Your task to perform on an android device: turn off javascript in the chrome app Image 0: 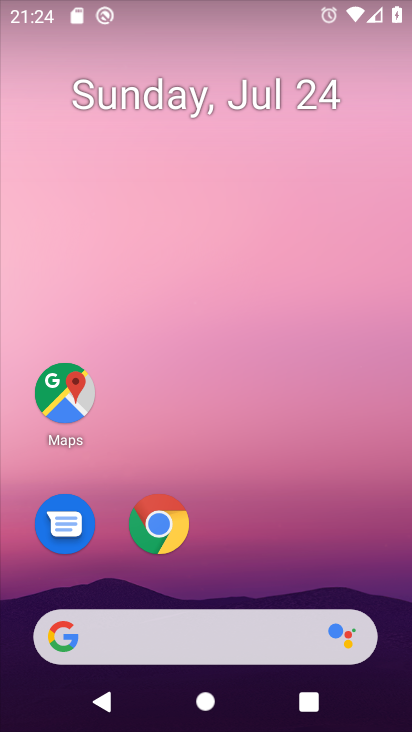
Step 0: click (167, 527)
Your task to perform on an android device: turn off javascript in the chrome app Image 1: 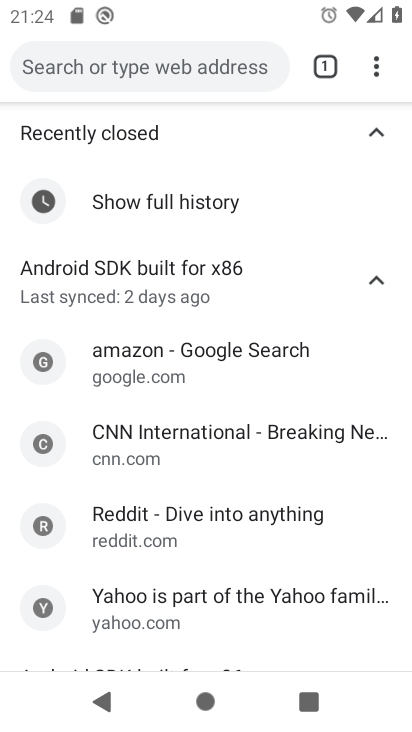
Step 1: click (375, 70)
Your task to perform on an android device: turn off javascript in the chrome app Image 2: 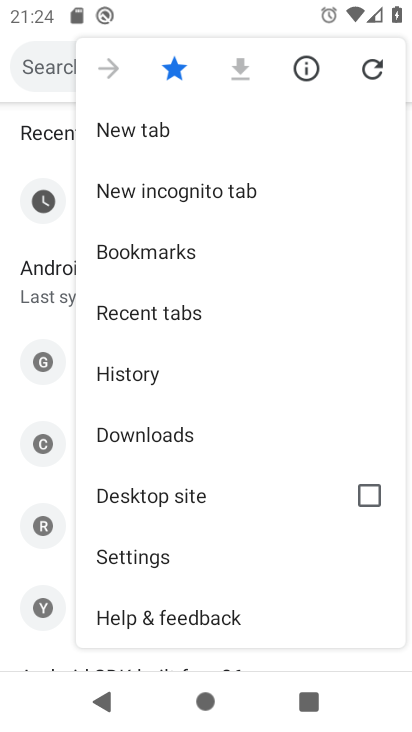
Step 2: click (154, 552)
Your task to perform on an android device: turn off javascript in the chrome app Image 3: 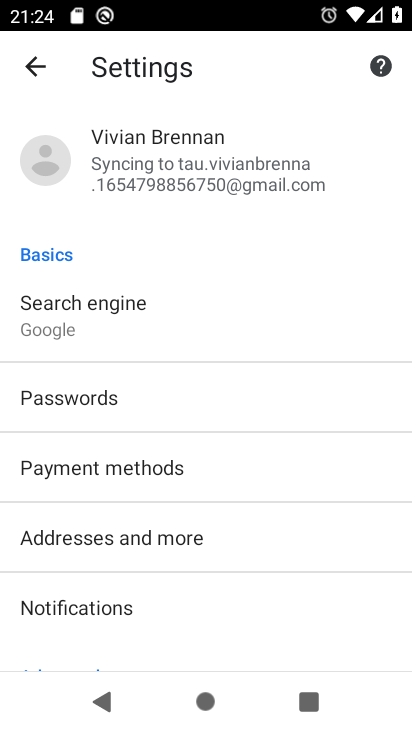
Step 3: drag from (261, 520) to (287, 215)
Your task to perform on an android device: turn off javascript in the chrome app Image 4: 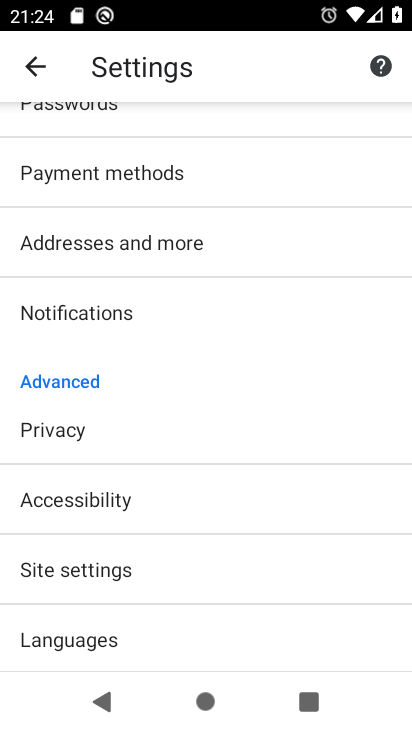
Step 4: click (125, 568)
Your task to perform on an android device: turn off javascript in the chrome app Image 5: 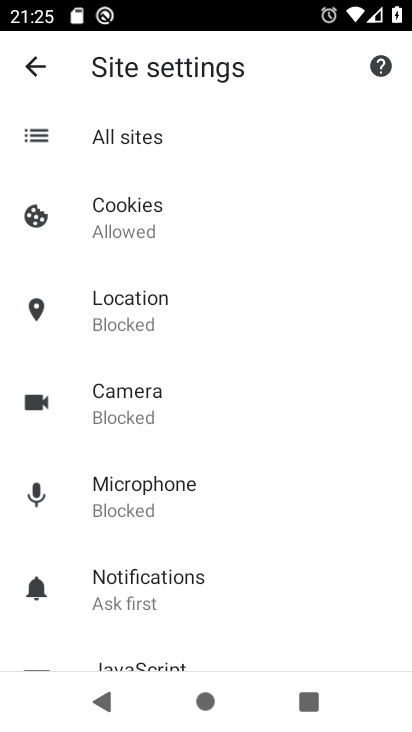
Step 5: drag from (236, 501) to (244, 267)
Your task to perform on an android device: turn off javascript in the chrome app Image 6: 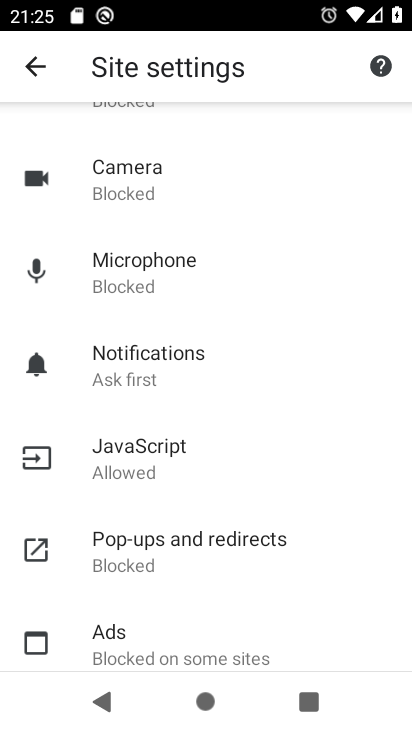
Step 6: click (150, 454)
Your task to perform on an android device: turn off javascript in the chrome app Image 7: 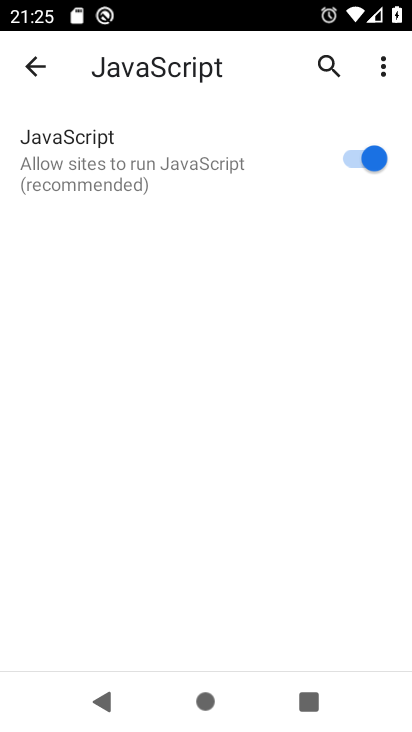
Step 7: click (380, 159)
Your task to perform on an android device: turn off javascript in the chrome app Image 8: 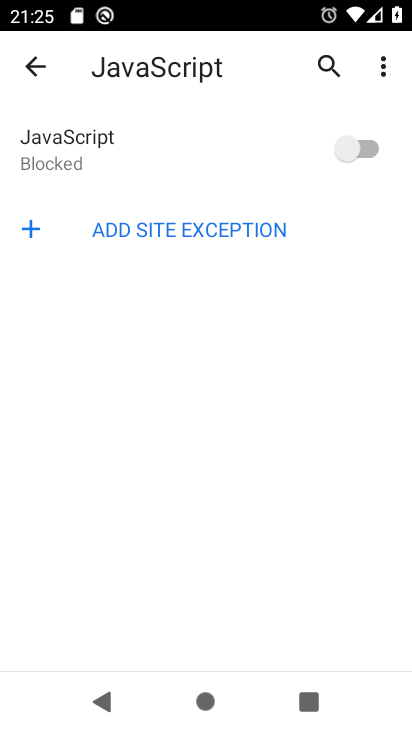
Step 8: task complete